Your task to perform on an android device: Go to notification settings Image 0: 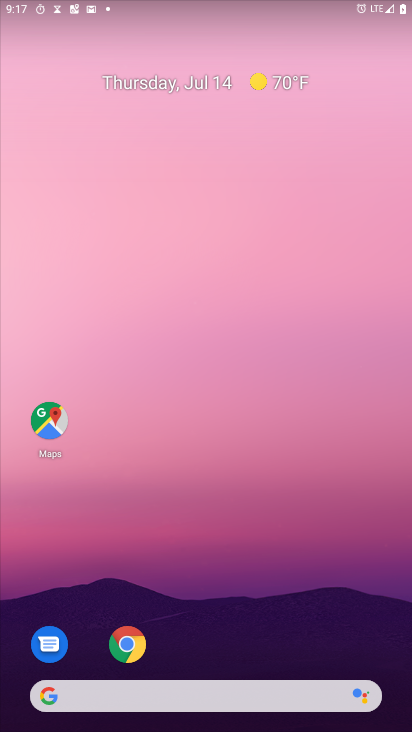
Step 0: drag from (210, 693) to (376, 134)
Your task to perform on an android device: Go to notification settings Image 1: 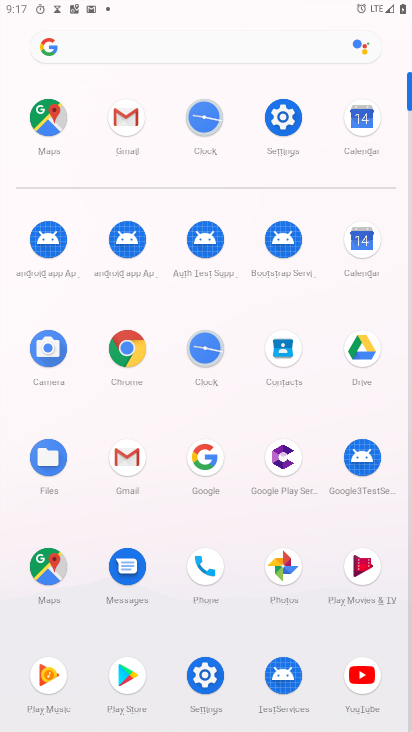
Step 1: click (289, 126)
Your task to perform on an android device: Go to notification settings Image 2: 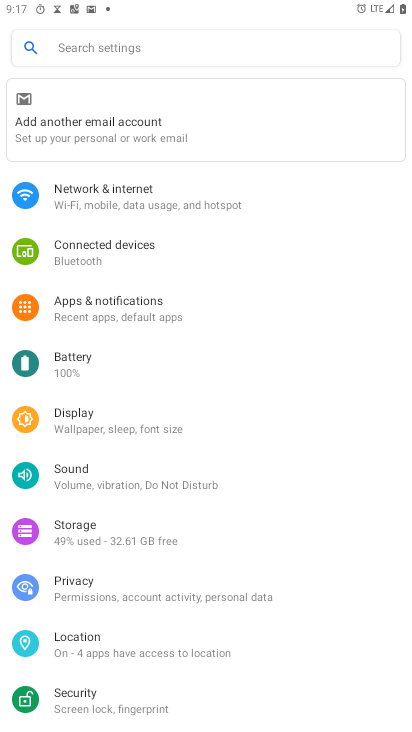
Step 2: click (158, 311)
Your task to perform on an android device: Go to notification settings Image 3: 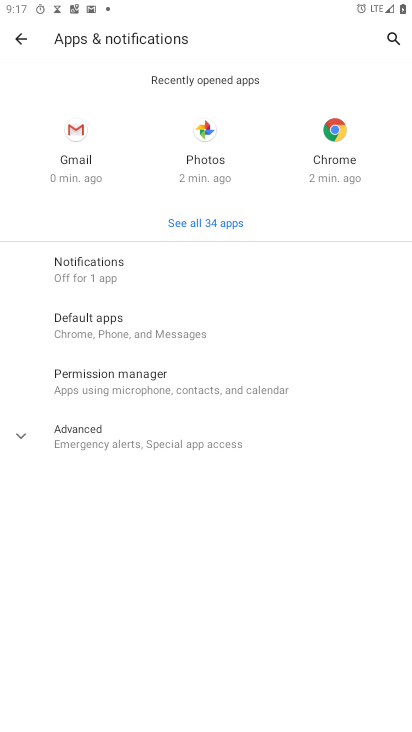
Step 3: click (112, 270)
Your task to perform on an android device: Go to notification settings Image 4: 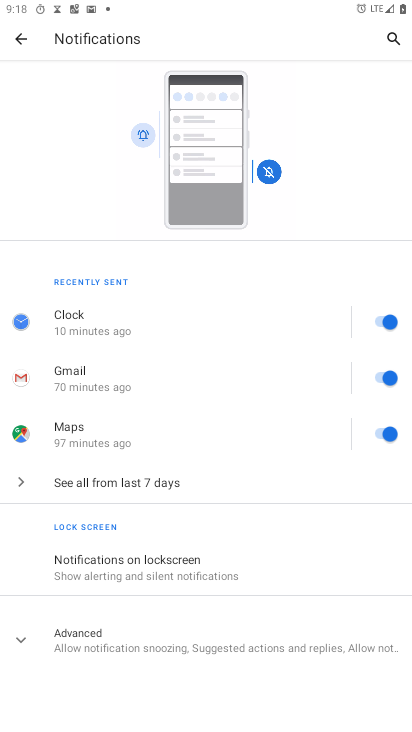
Step 4: task complete